Your task to perform on an android device: open chrome privacy settings Image 0: 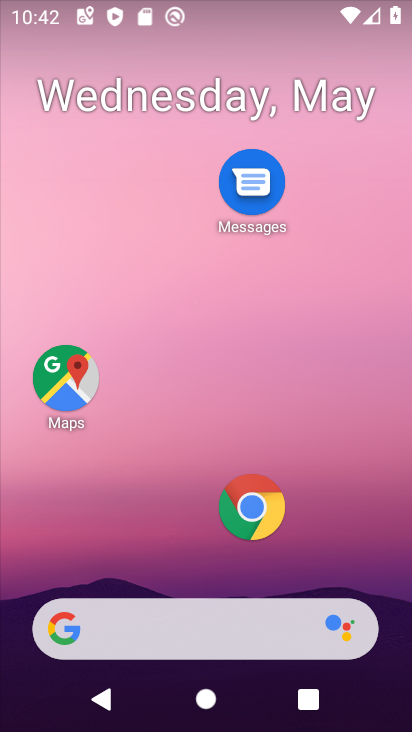
Step 0: click (248, 501)
Your task to perform on an android device: open chrome privacy settings Image 1: 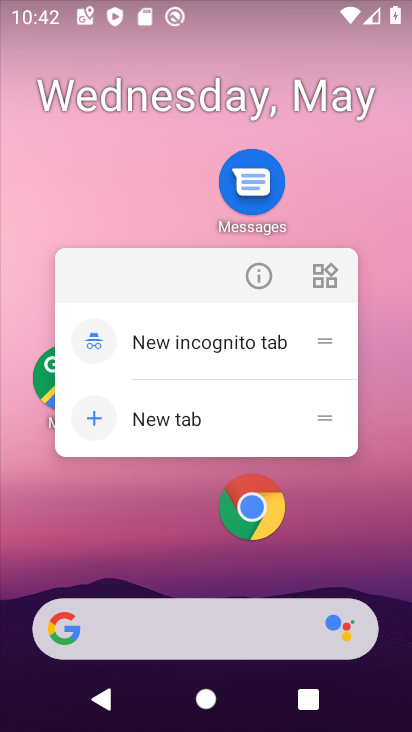
Step 1: click (249, 501)
Your task to perform on an android device: open chrome privacy settings Image 2: 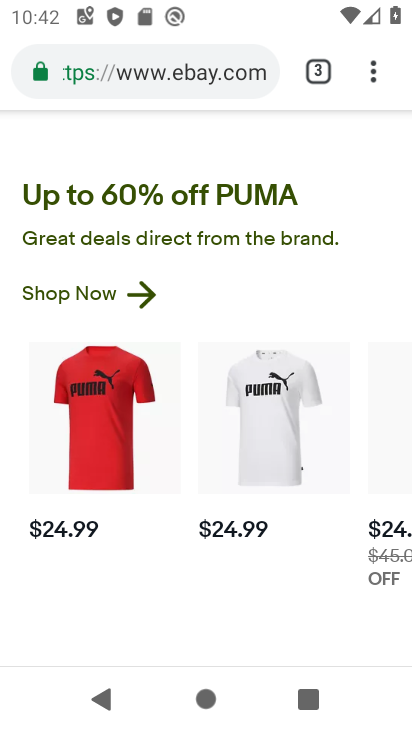
Step 2: drag from (208, 150) to (183, 504)
Your task to perform on an android device: open chrome privacy settings Image 3: 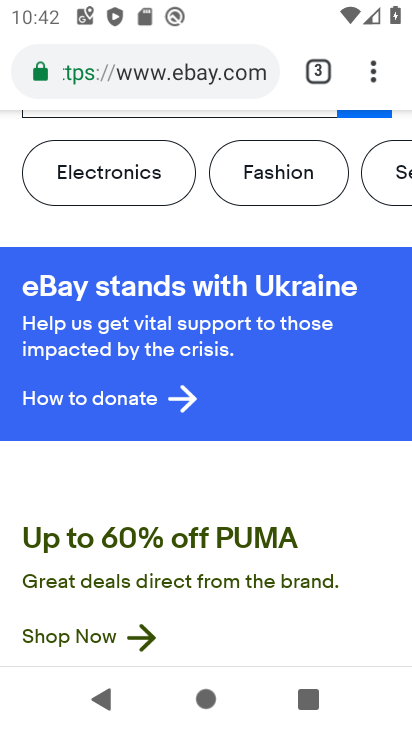
Step 3: click (316, 68)
Your task to perform on an android device: open chrome privacy settings Image 4: 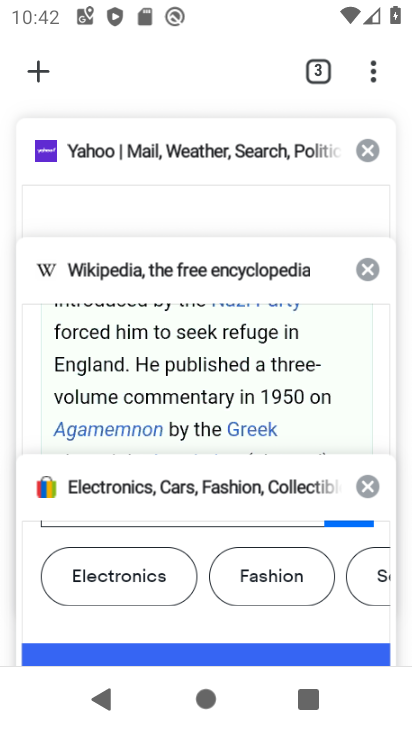
Step 4: click (366, 147)
Your task to perform on an android device: open chrome privacy settings Image 5: 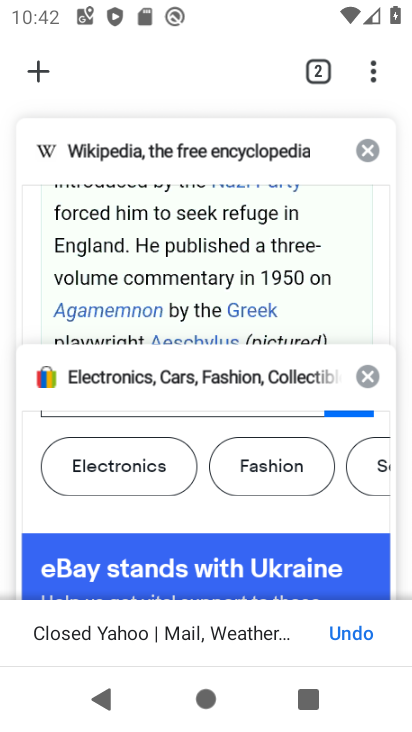
Step 5: click (366, 147)
Your task to perform on an android device: open chrome privacy settings Image 6: 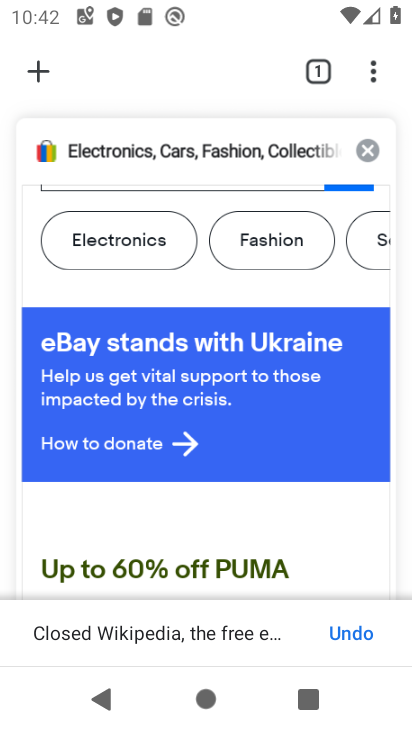
Step 6: click (364, 143)
Your task to perform on an android device: open chrome privacy settings Image 7: 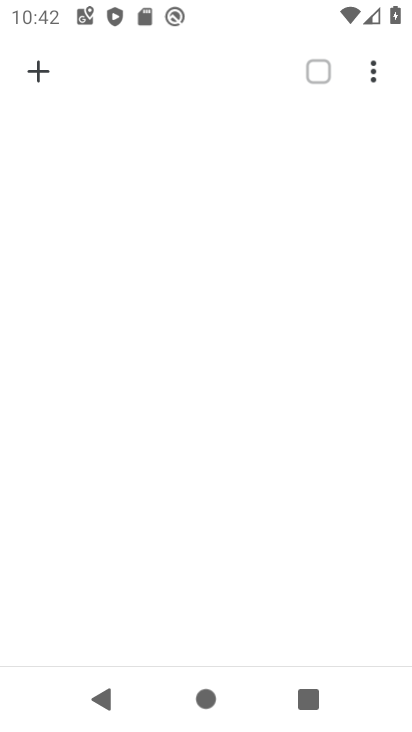
Step 7: click (45, 72)
Your task to perform on an android device: open chrome privacy settings Image 8: 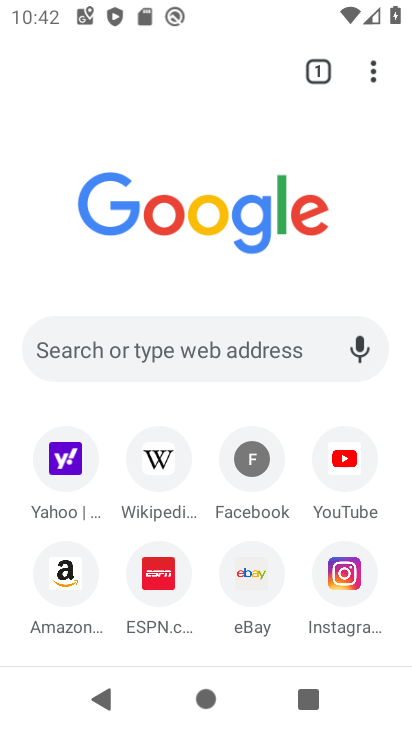
Step 8: click (373, 67)
Your task to perform on an android device: open chrome privacy settings Image 9: 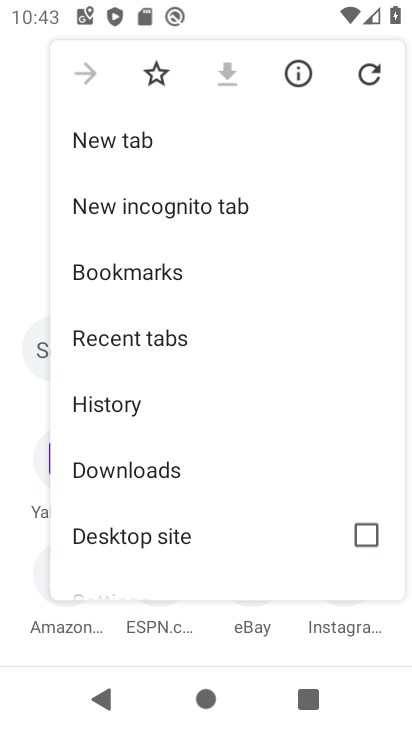
Step 9: drag from (230, 535) to (235, 95)
Your task to perform on an android device: open chrome privacy settings Image 10: 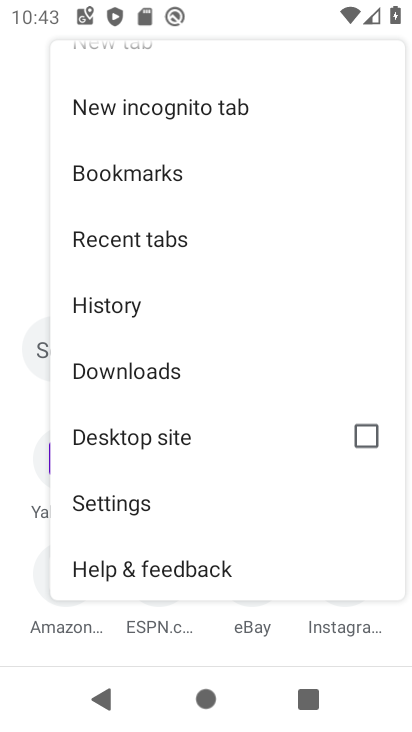
Step 10: click (165, 505)
Your task to perform on an android device: open chrome privacy settings Image 11: 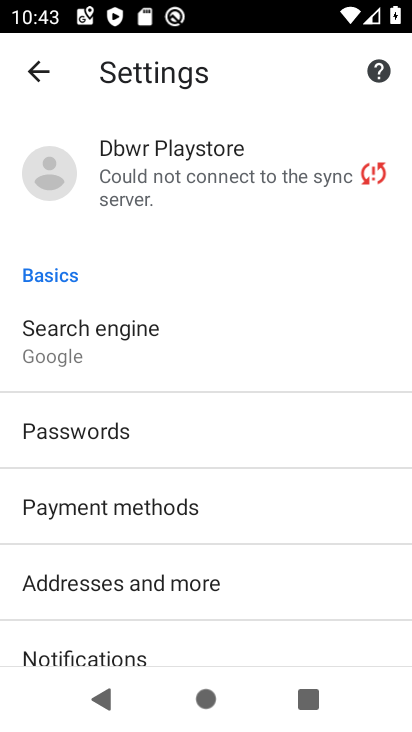
Step 11: drag from (216, 632) to (224, 430)
Your task to perform on an android device: open chrome privacy settings Image 12: 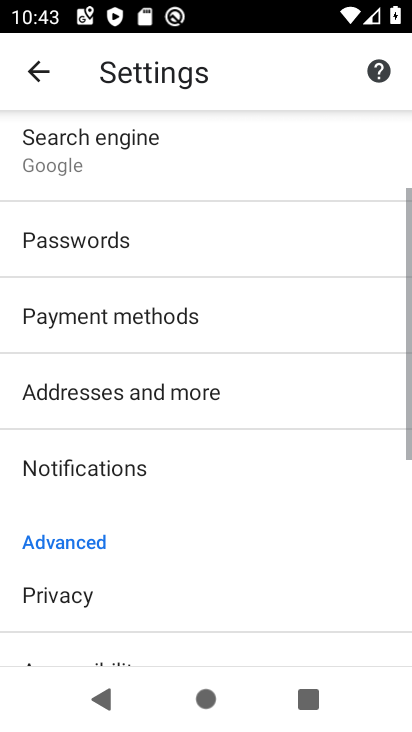
Step 12: drag from (236, 263) to (241, 229)
Your task to perform on an android device: open chrome privacy settings Image 13: 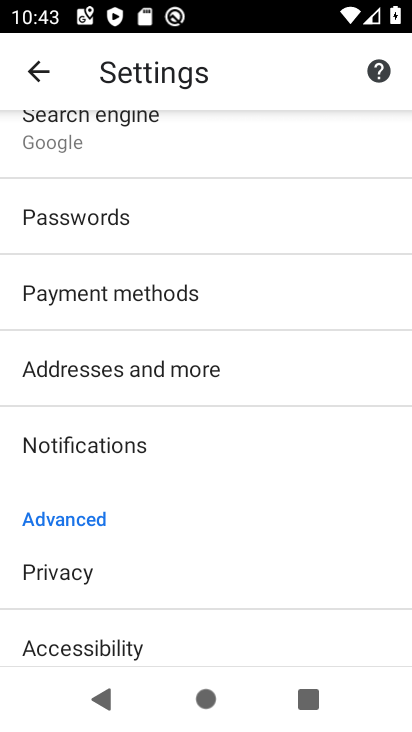
Step 13: click (104, 575)
Your task to perform on an android device: open chrome privacy settings Image 14: 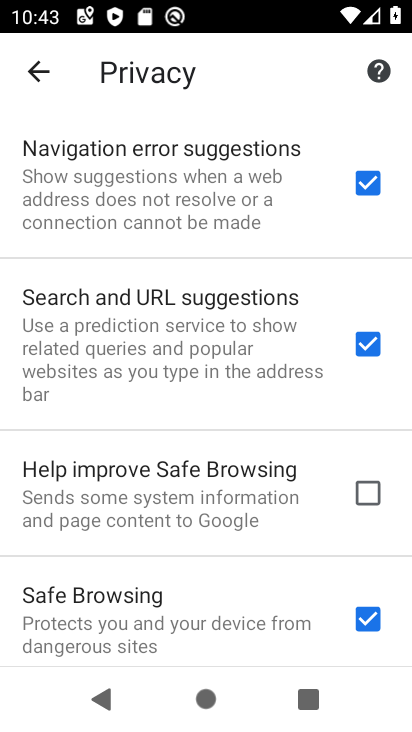
Step 14: task complete